Your task to perform on an android device: Do I have any events today? Image 0: 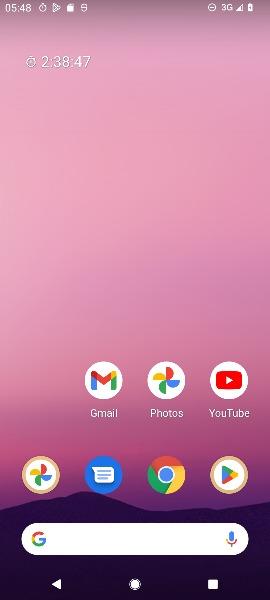
Step 0: drag from (66, 427) to (65, 219)
Your task to perform on an android device: Do I have any events today? Image 1: 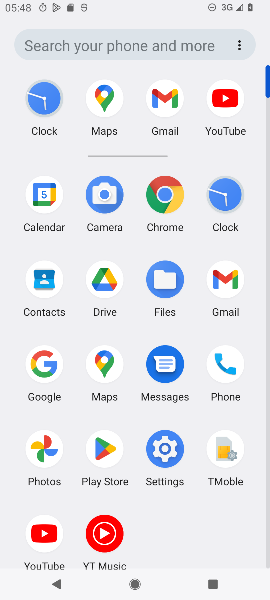
Step 1: click (45, 192)
Your task to perform on an android device: Do I have any events today? Image 2: 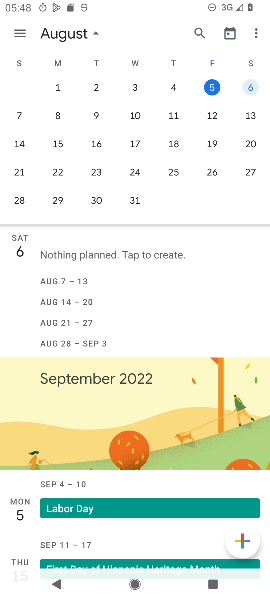
Step 2: click (211, 84)
Your task to perform on an android device: Do I have any events today? Image 3: 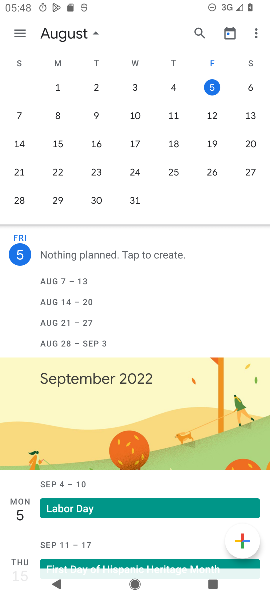
Step 3: task complete